Your task to perform on an android device: find which apps use the phone's location Image 0: 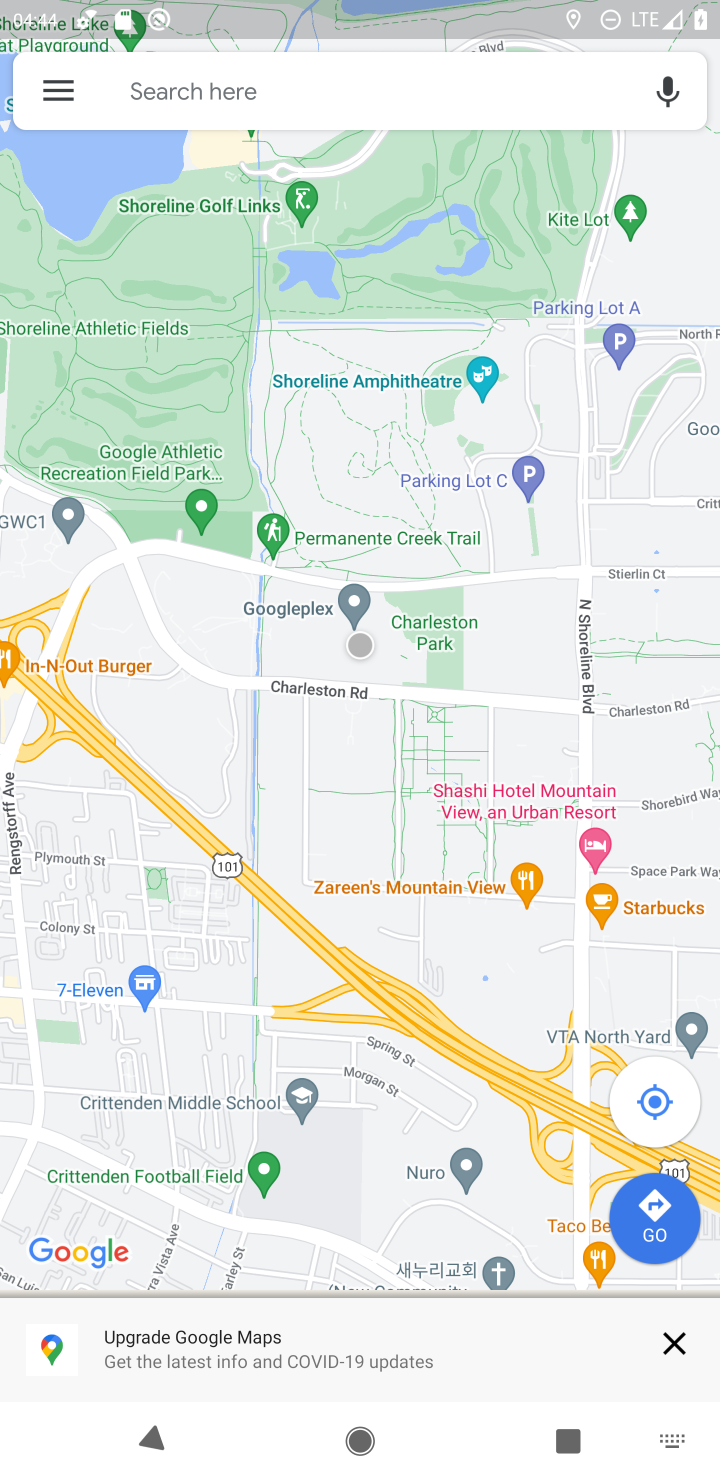
Step 0: press home button
Your task to perform on an android device: find which apps use the phone's location Image 1: 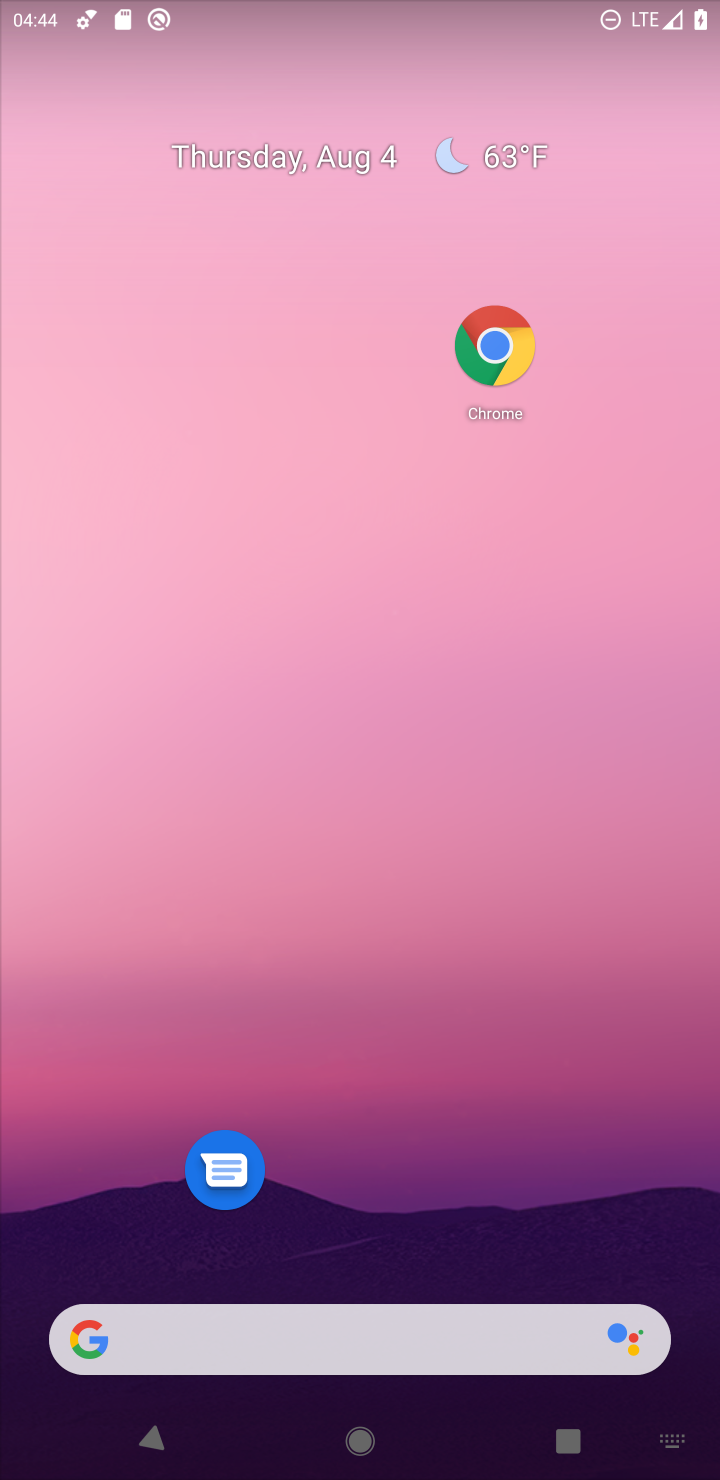
Step 1: drag from (673, 1161) to (606, 297)
Your task to perform on an android device: find which apps use the phone's location Image 2: 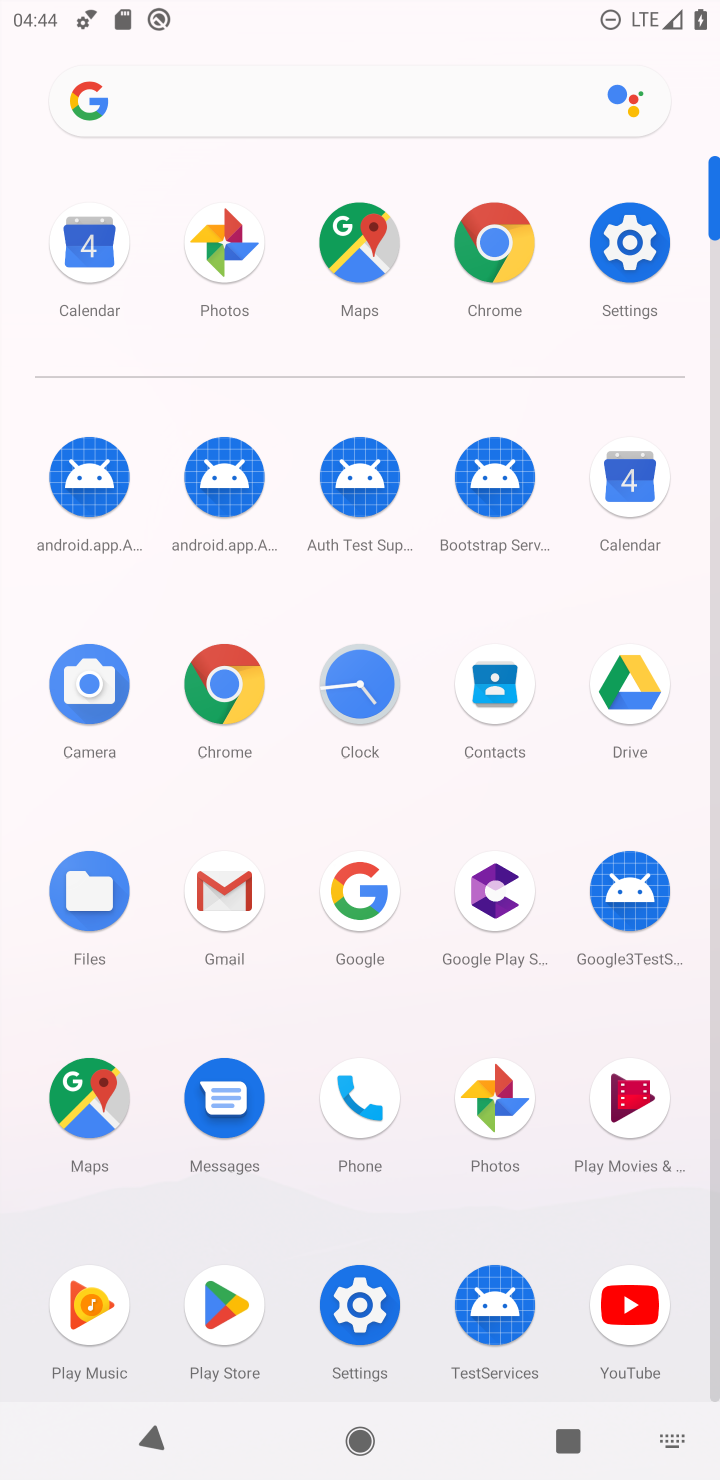
Step 2: click (628, 249)
Your task to perform on an android device: find which apps use the phone's location Image 3: 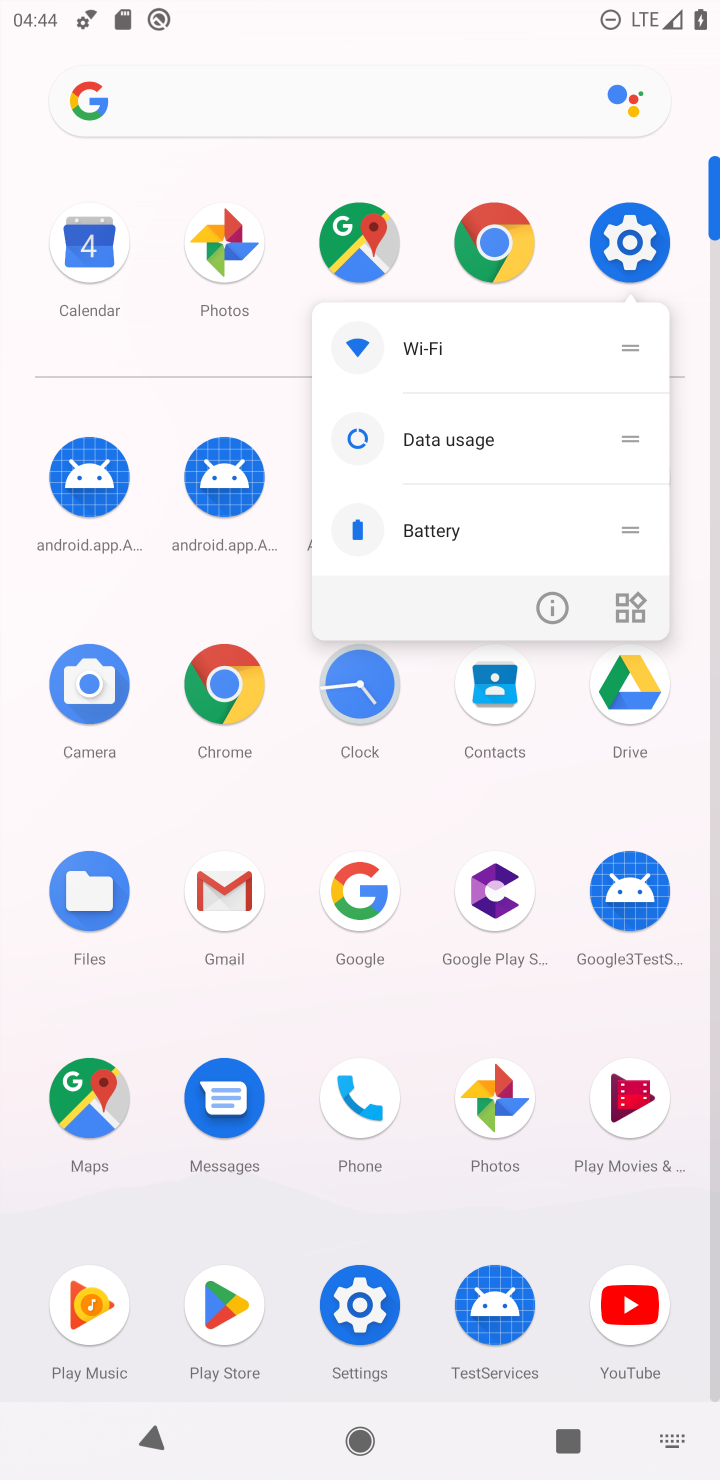
Step 3: click (620, 257)
Your task to perform on an android device: find which apps use the phone's location Image 4: 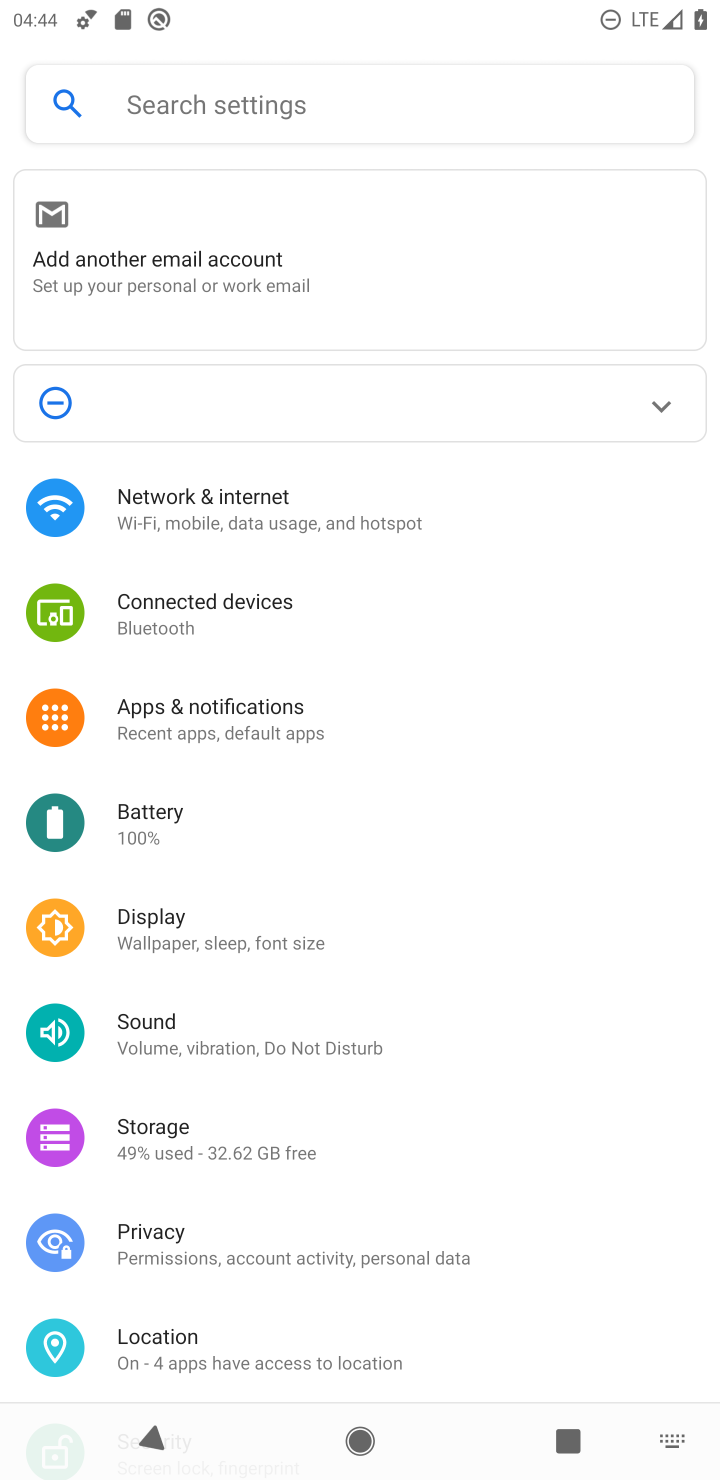
Step 4: click (348, 1357)
Your task to perform on an android device: find which apps use the phone's location Image 5: 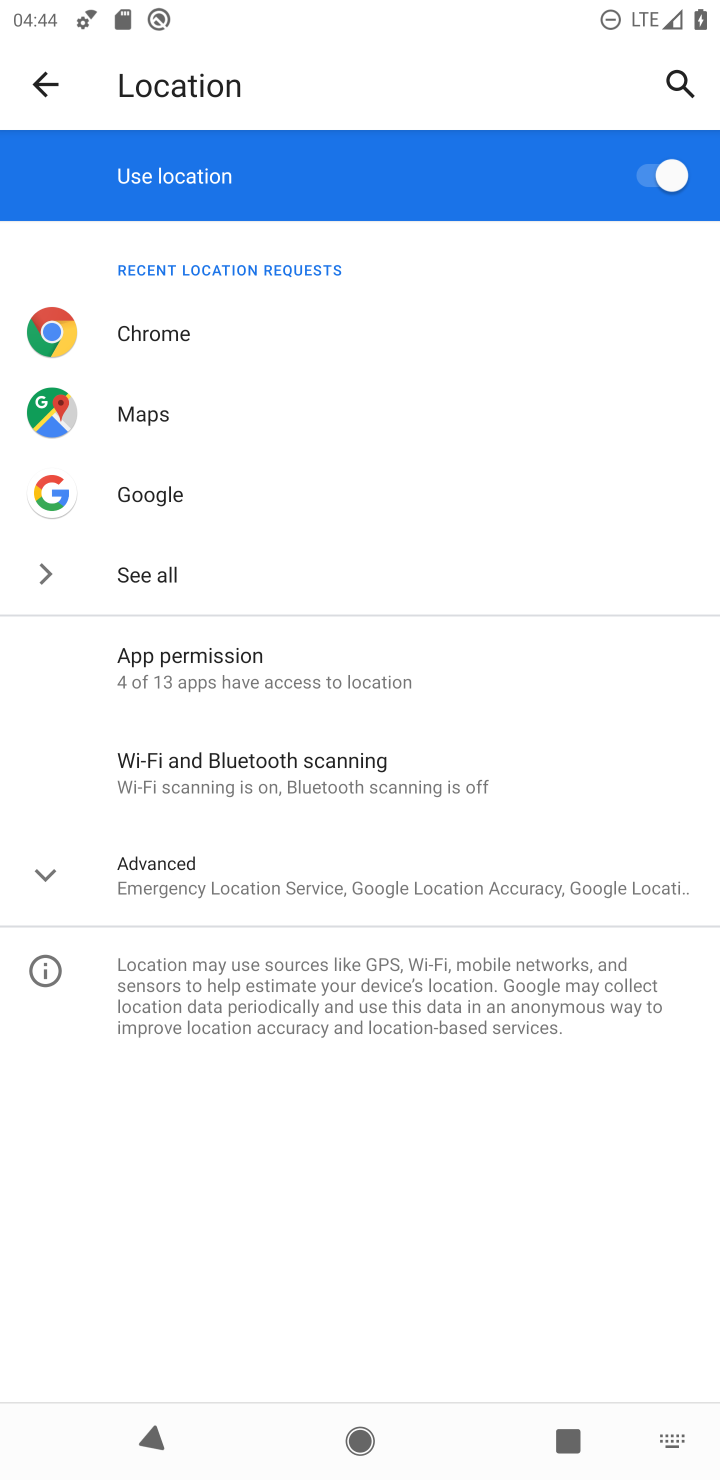
Step 5: click (297, 681)
Your task to perform on an android device: find which apps use the phone's location Image 6: 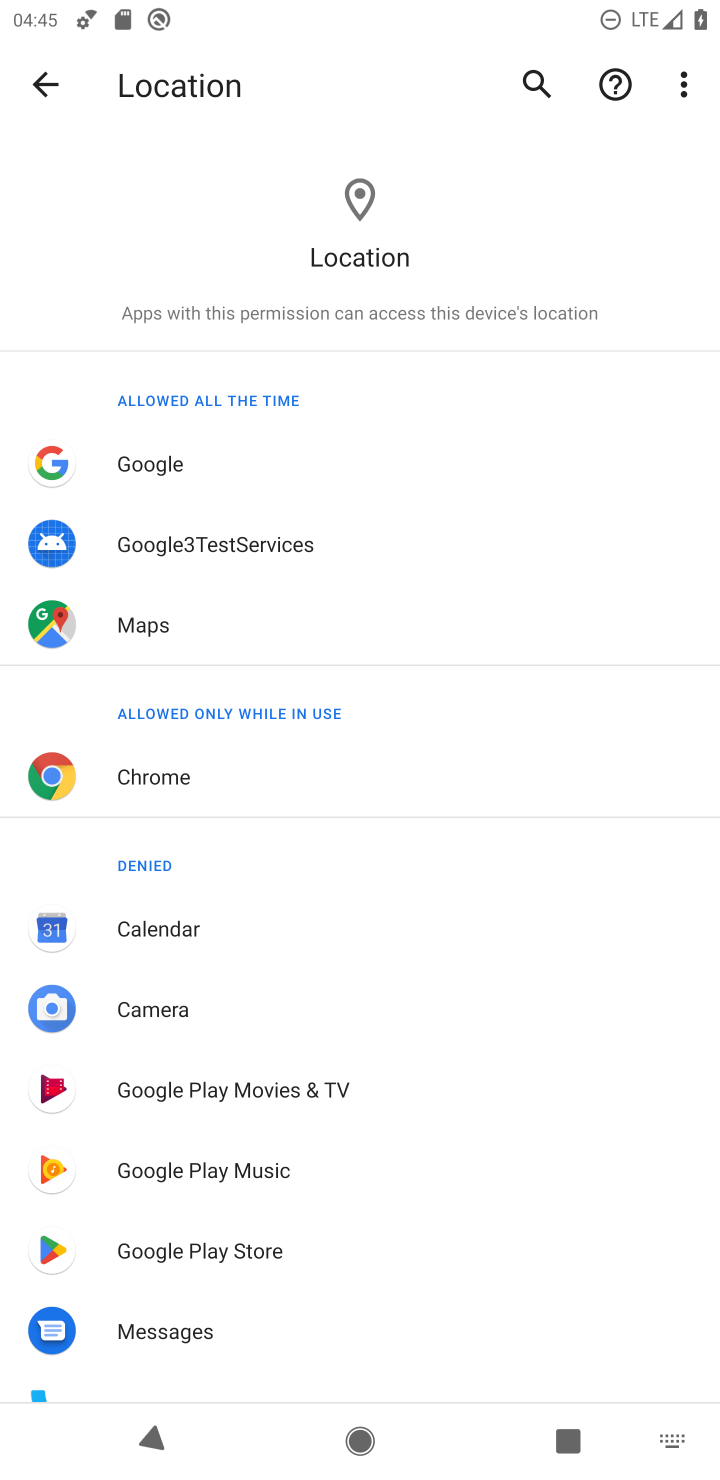
Step 6: task complete